Your task to perform on an android device: Open Yahoo.com Image 0: 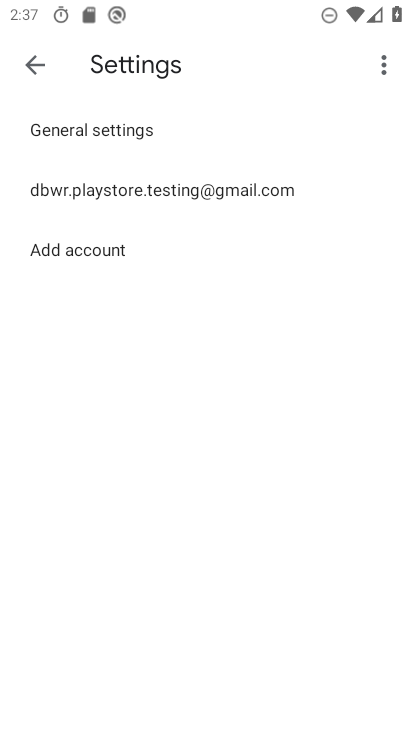
Step 0: press home button
Your task to perform on an android device: Open Yahoo.com Image 1: 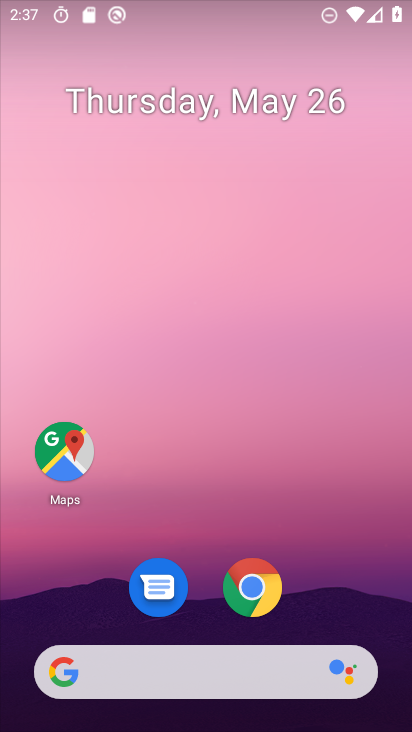
Step 1: drag from (332, 578) to (310, 167)
Your task to perform on an android device: Open Yahoo.com Image 2: 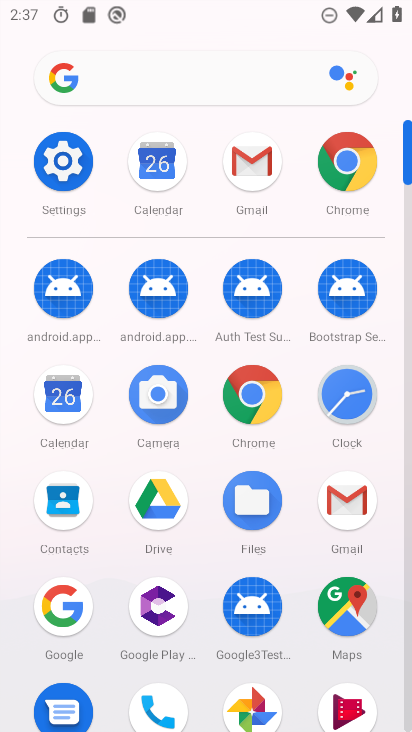
Step 2: click (347, 169)
Your task to perform on an android device: Open Yahoo.com Image 3: 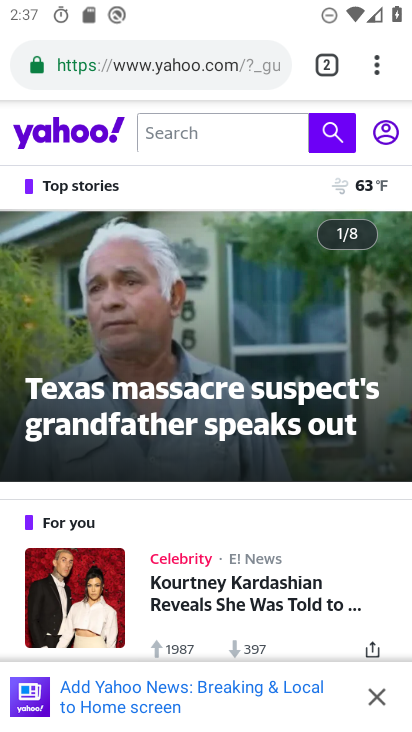
Step 3: task complete